Your task to perform on an android device: Open calendar and show me the first week of next month Image 0: 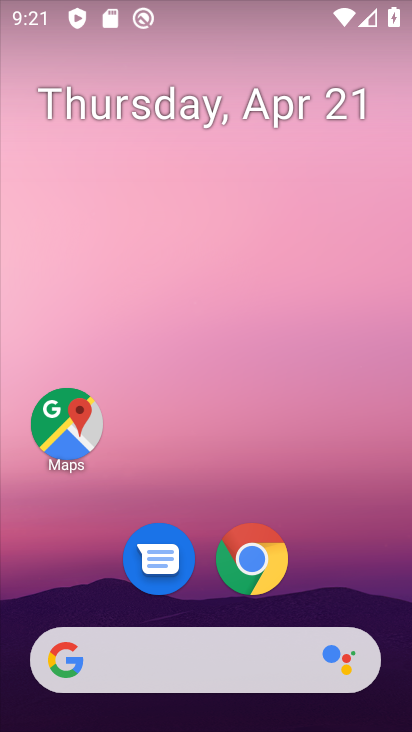
Step 0: drag from (351, 540) to (306, 104)
Your task to perform on an android device: Open calendar and show me the first week of next month Image 1: 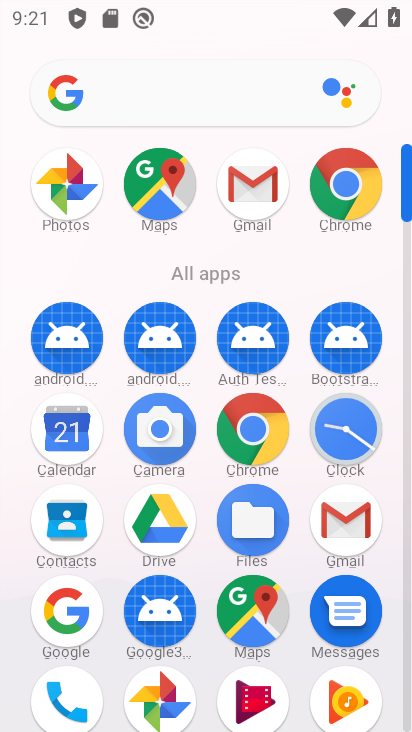
Step 1: click (68, 452)
Your task to perform on an android device: Open calendar and show me the first week of next month Image 2: 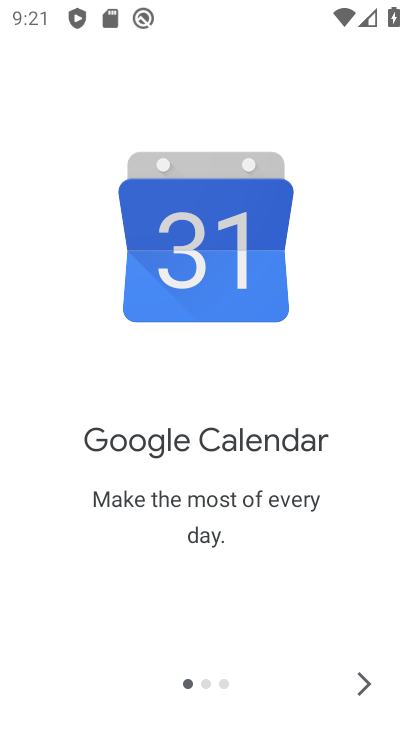
Step 2: click (357, 674)
Your task to perform on an android device: Open calendar and show me the first week of next month Image 3: 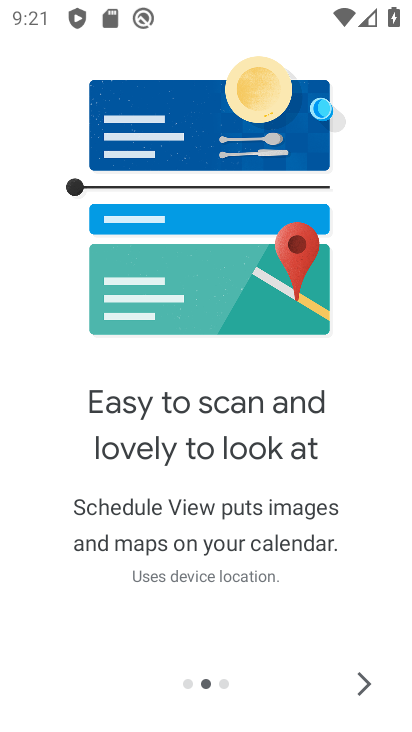
Step 3: click (360, 677)
Your task to perform on an android device: Open calendar and show me the first week of next month Image 4: 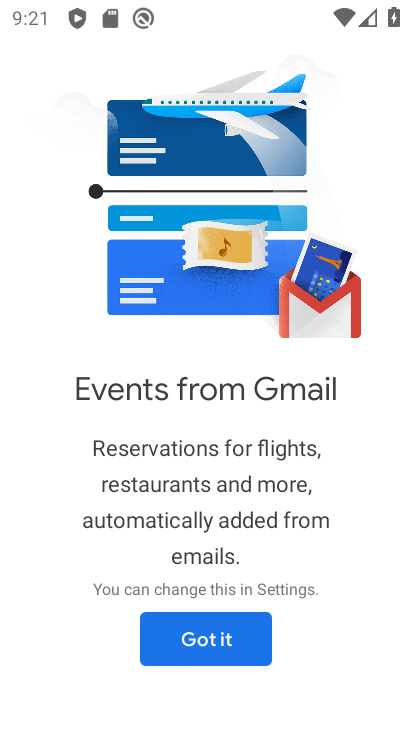
Step 4: click (241, 653)
Your task to perform on an android device: Open calendar and show me the first week of next month Image 5: 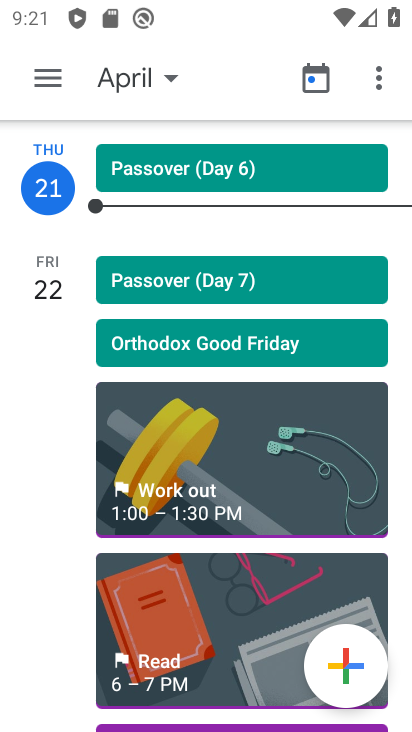
Step 5: click (157, 82)
Your task to perform on an android device: Open calendar and show me the first week of next month Image 6: 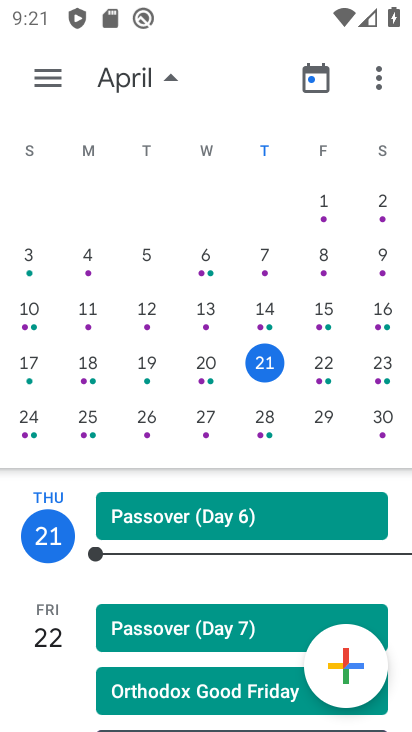
Step 6: drag from (378, 365) to (29, 341)
Your task to perform on an android device: Open calendar and show me the first week of next month Image 7: 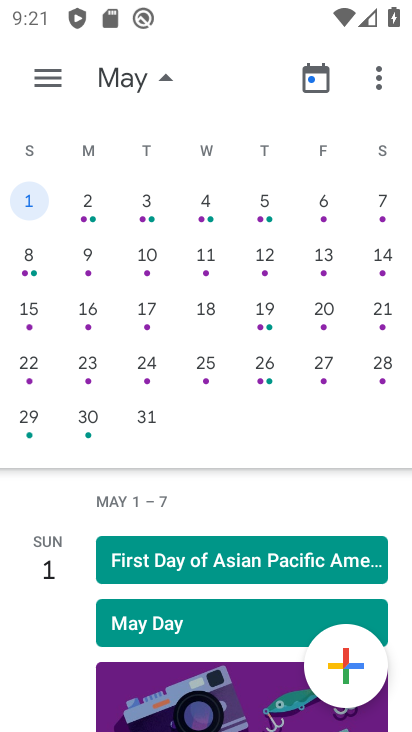
Step 7: click (90, 204)
Your task to perform on an android device: Open calendar and show me the first week of next month Image 8: 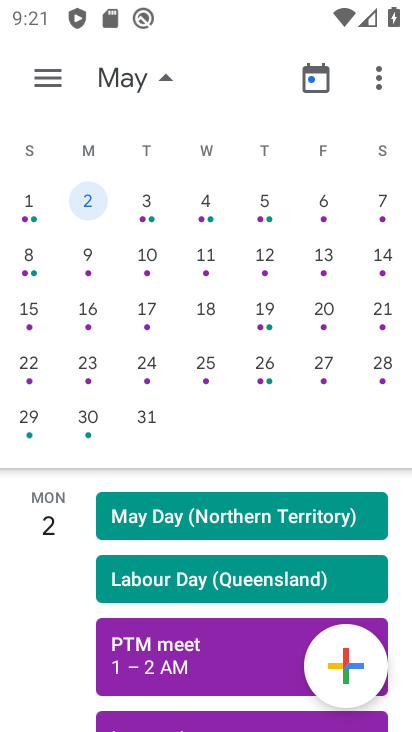
Step 8: click (53, 79)
Your task to perform on an android device: Open calendar and show me the first week of next month Image 9: 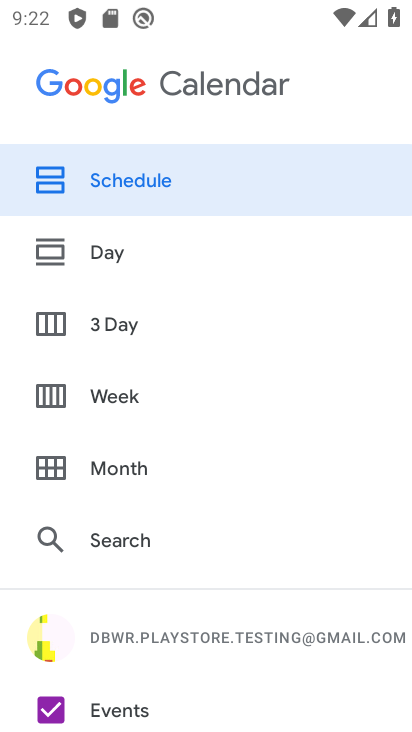
Step 9: click (126, 400)
Your task to perform on an android device: Open calendar and show me the first week of next month Image 10: 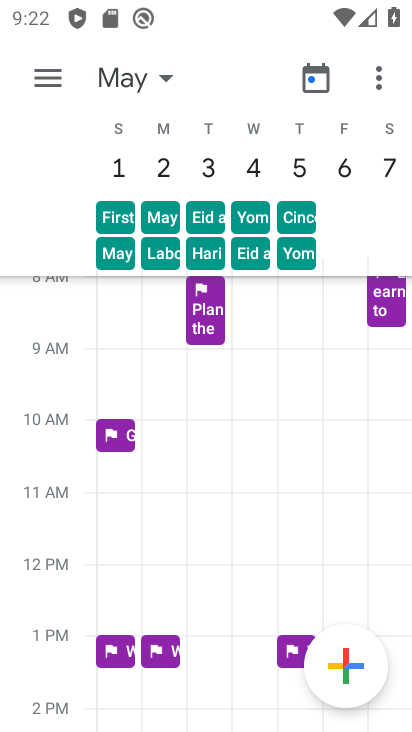
Step 10: task complete